Your task to perform on an android device: See recent photos Image 0: 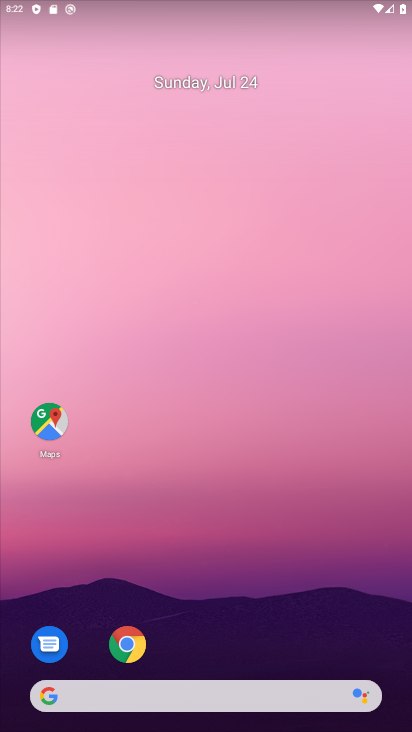
Step 0: drag from (318, 632) to (326, 150)
Your task to perform on an android device: See recent photos Image 1: 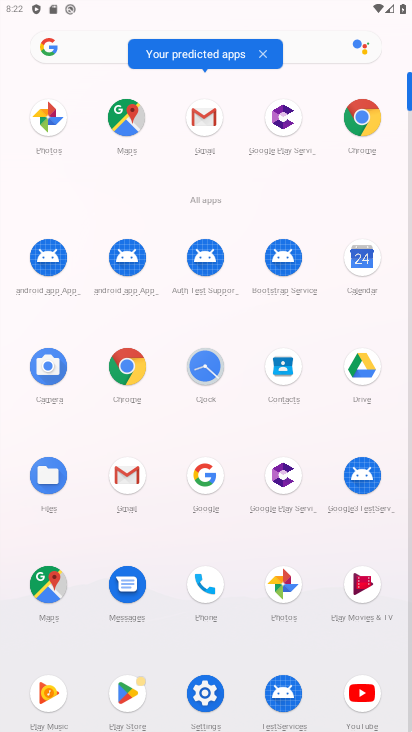
Step 1: click (283, 575)
Your task to perform on an android device: See recent photos Image 2: 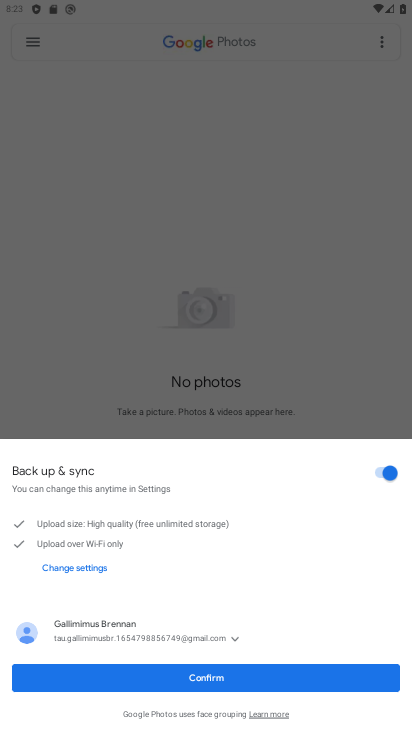
Step 2: press home button
Your task to perform on an android device: See recent photos Image 3: 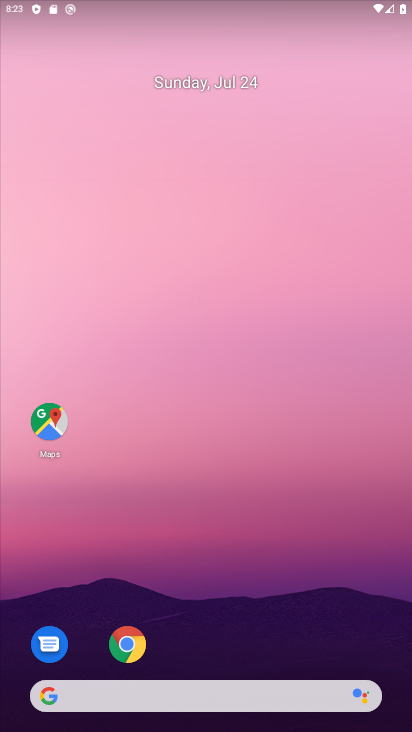
Step 3: drag from (291, 631) to (330, 29)
Your task to perform on an android device: See recent photos Image 4: 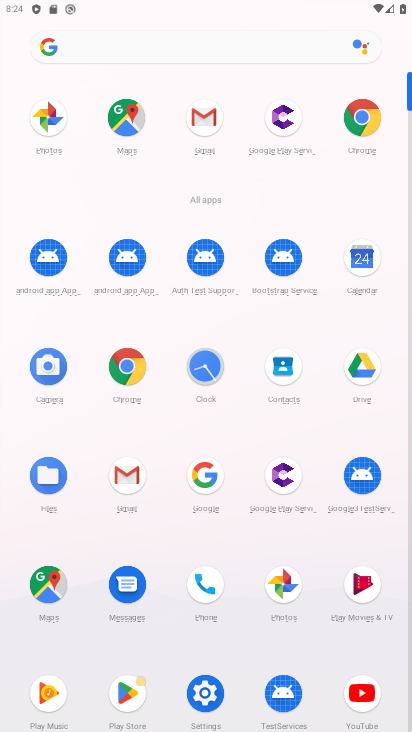
Step 4: click (282, 582)
Your task to perform on an android device: See recent photos Image 5: 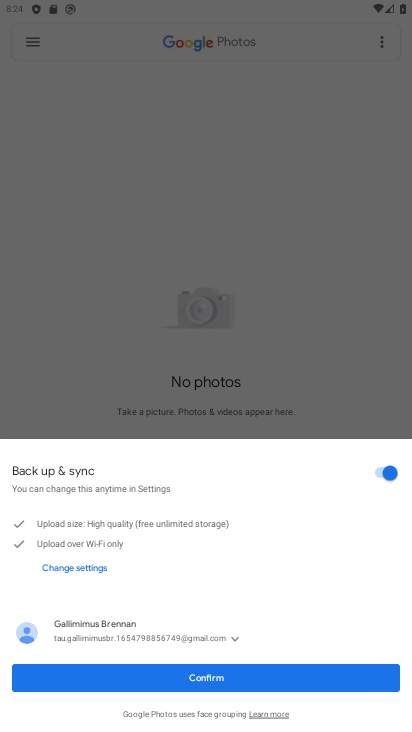
Step 5: click (240, 673)
Your task to perform on an android device: See recent photos Image 6: 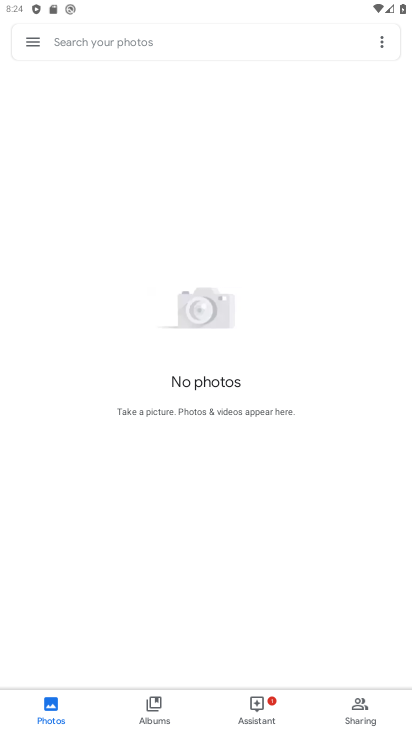
Step 6: click (43, 694)
Your task to perform on an android device: See recent photos Image 7: 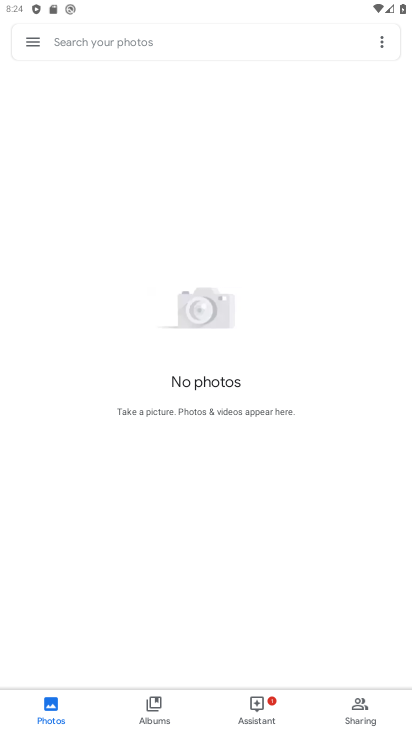
Step 7: task complete